Your task to perform on an android device: Check the weather Image 0: 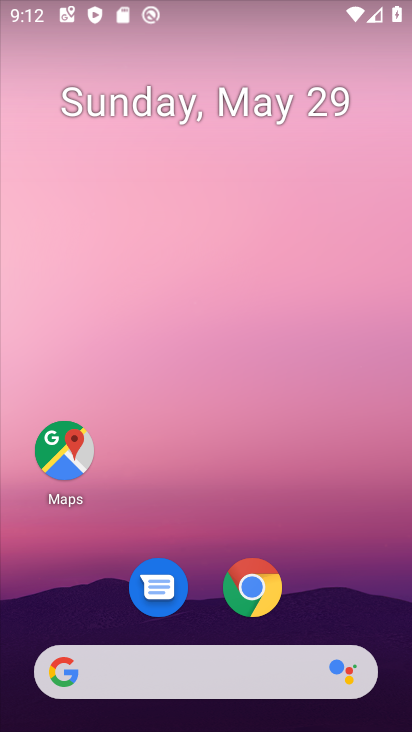
Step 0: click (175, 672)
Your task to perform on an android device: Check the weather Image 1: 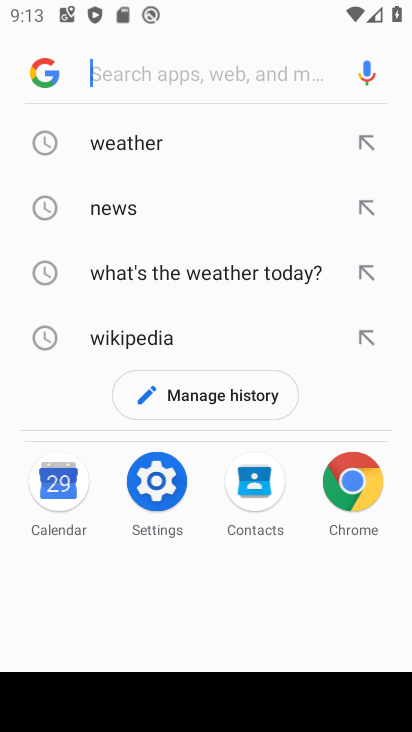
Step 1: click (170, 145)
Your task to perform on an android device: Check the weather Image 2: 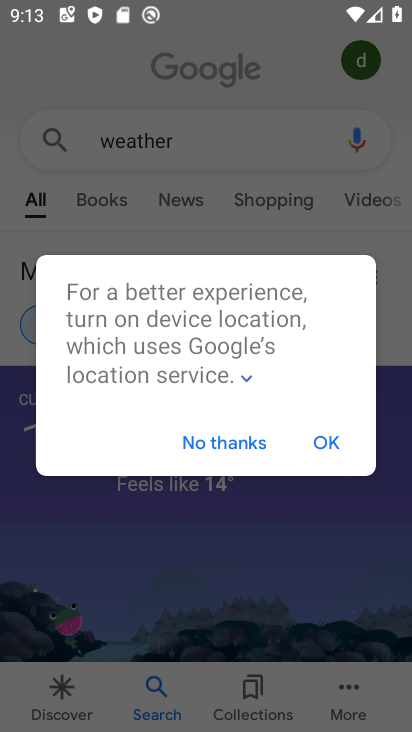
Step 2: click (323, 448)
Your task to perform on an android device: Check the weather Image 3: 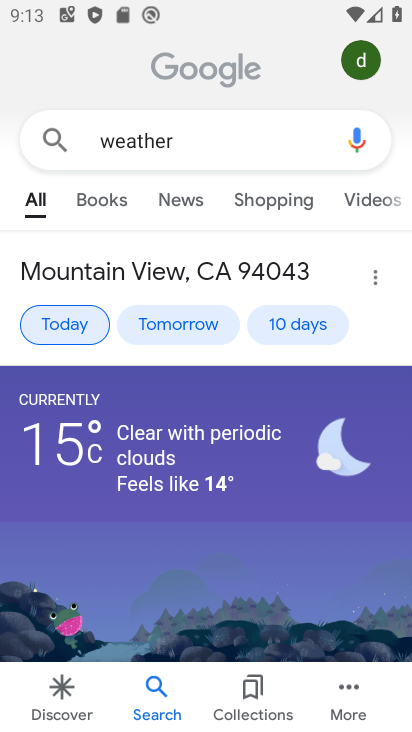
Step 3: task complete